Your task to perform on an android device: stop showing notifications on the lock screen Image 0: 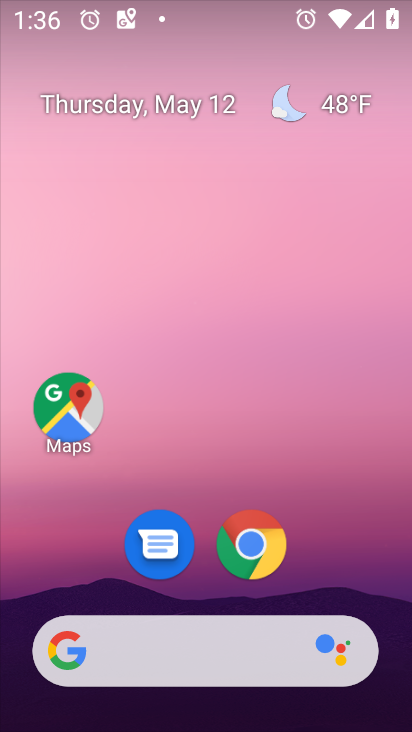
Step 0: drag from (337, 505) to (5, 240)
Your task to perform on an android device: stop showing notifications on the lock screen Image 1: 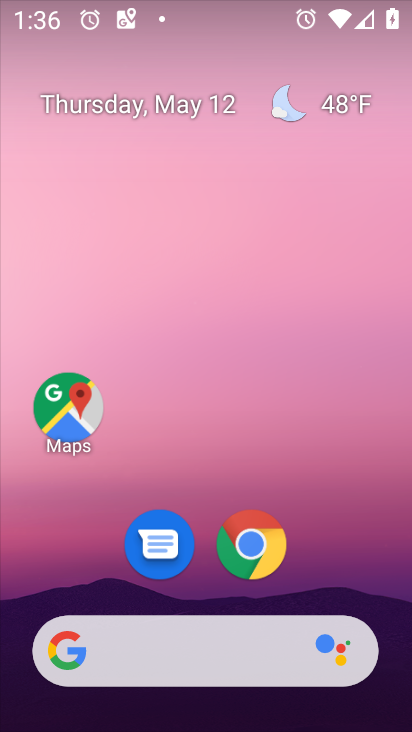
Step 1: drag from (8, 669) to (19, 4)
Your task to perform on an android device: stop showing notifications on the lock screen Image 2: 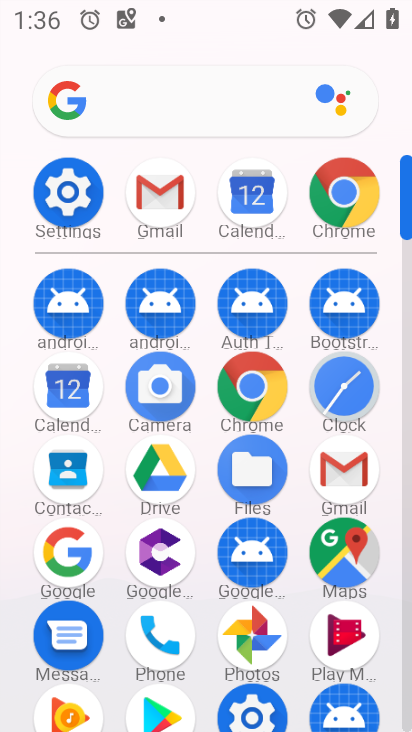
Step 2: click (66, 193)
Your task to perform on an android device: stop showing notifications on the lock screen Image 3: 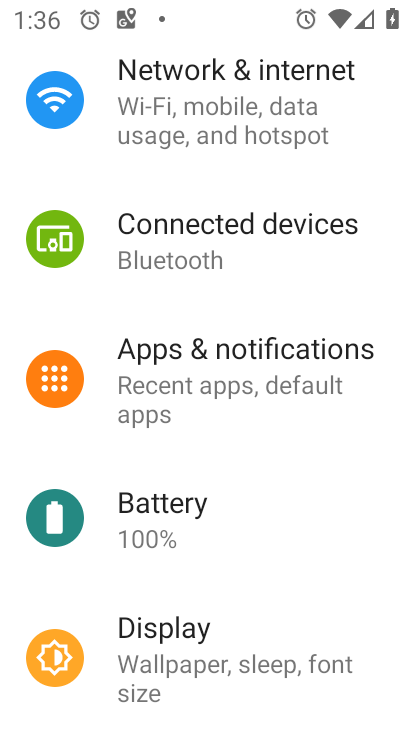
Step 3: drag from (262, 509) to (269, 114)
Your task to perform on an android device: stop showing notifications on the lock screen Image 4: 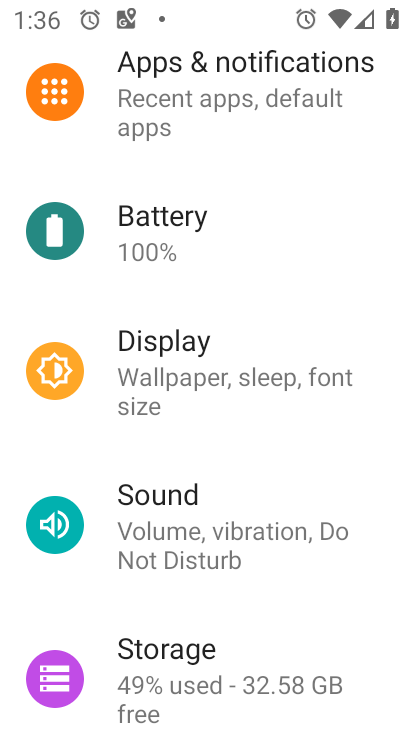
Step 4: drag from (269, 551) to (276, 168)
Your task to perform on an android device: stop showing notifications on the lock screen Image 5: 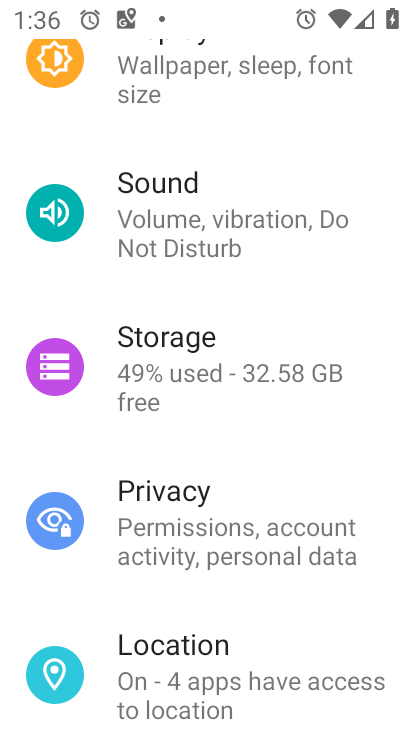
Step 5: drag from (232, 581) to (266, 148)
Your task to perform on an android device: stop showing notifications on the lock screen Image 6: 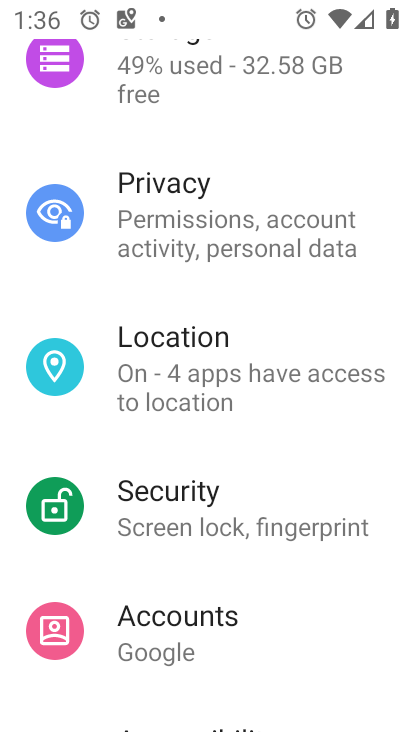
Step 6: drag from (267, 206) to (246, 599)
Your task to perform on an android device: stop showing notifications on the lock screen Image 7: 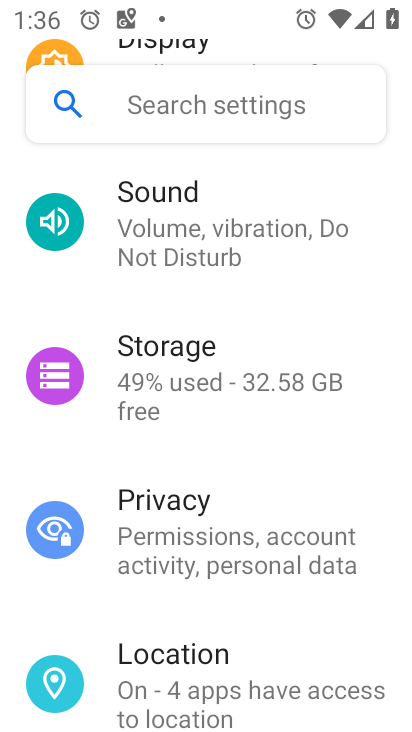
Step 7: drag from (218, 204) to (249, 671)
Your task to perform on an android device: stop showing notifications on the lock screen Image 8: 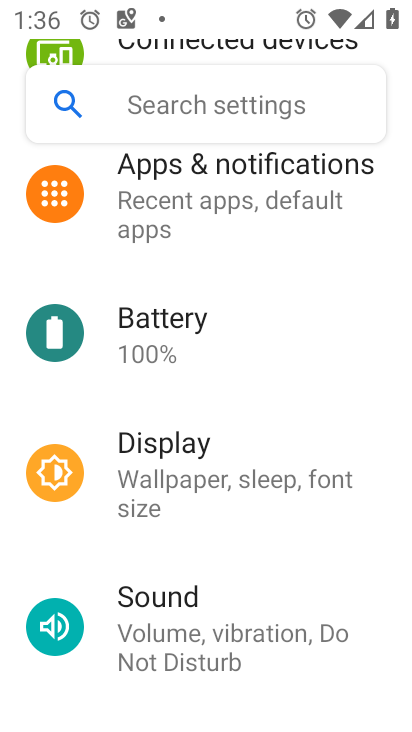
Step 8: click (252, 204)
Your task to perform on an android device: stop showing notifications on the lock screen Image 9: 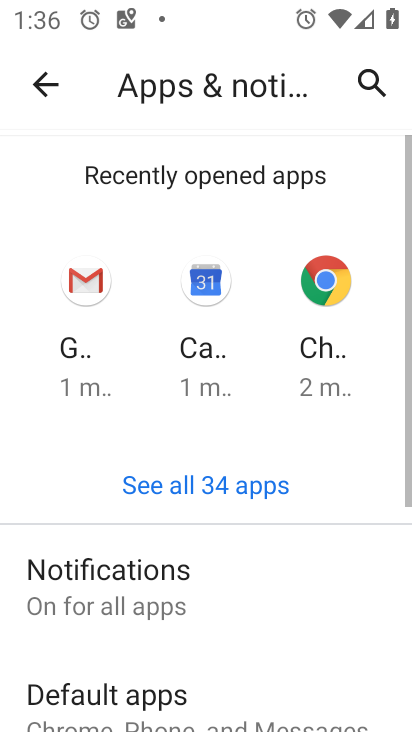
Step 9: drag from (272, 653) to (288, 227)
Your task to perform on an android device: stop showing notifications on the lock screen Image 10: 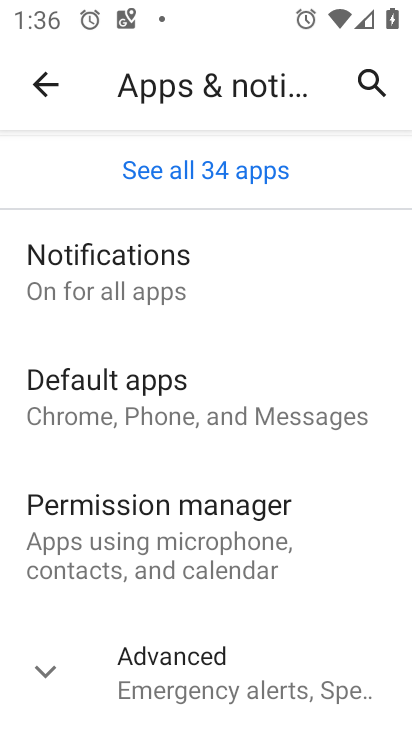
Step 10: drag from (238, 512) to (282, 222)
Your task to perform on an android device: stop showing notifications on the lock screen Image 11: 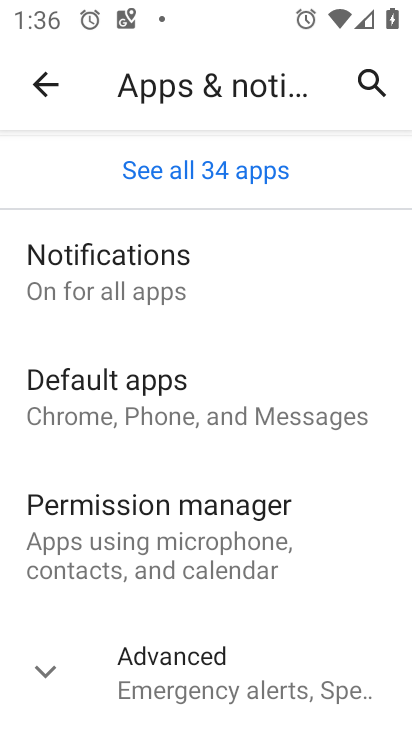
Step 11: click (198, 253)
Your task to perform on an android device: stop showing notifications on the lock screen Image 12: 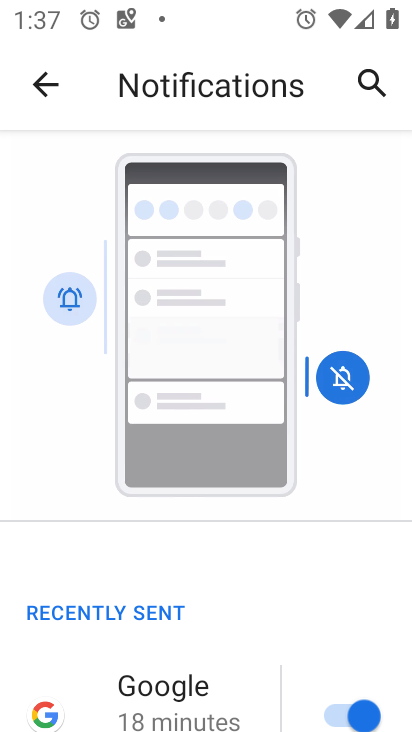
Step 12: drag from (196, 532) to (234, 165)
Your task to perform on an android device: stop showing notifications on the lock screen Image 13: 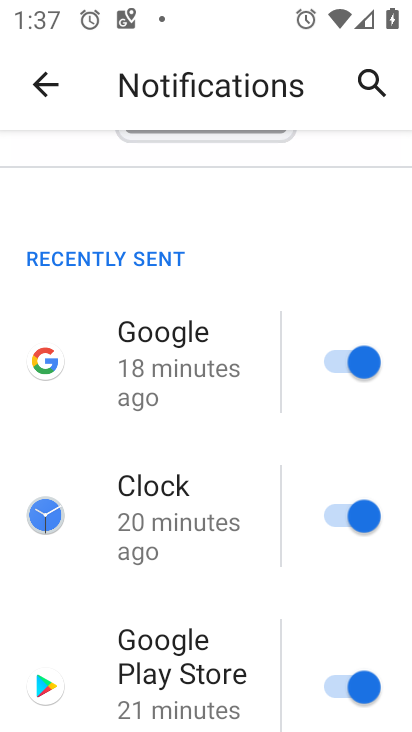
Step 13: drag from (150, 524) to (200, 192)
Your task to perform on an android device: stop showing notifications on the lock screen Image 14: 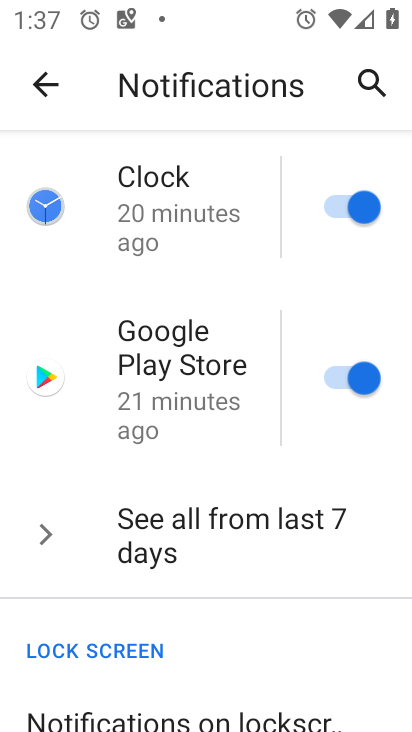
Step 14: drag from (212, 564) to (226, 136)
Your task to perform on an android device: stop showing notifications on the lock screen Image 15: 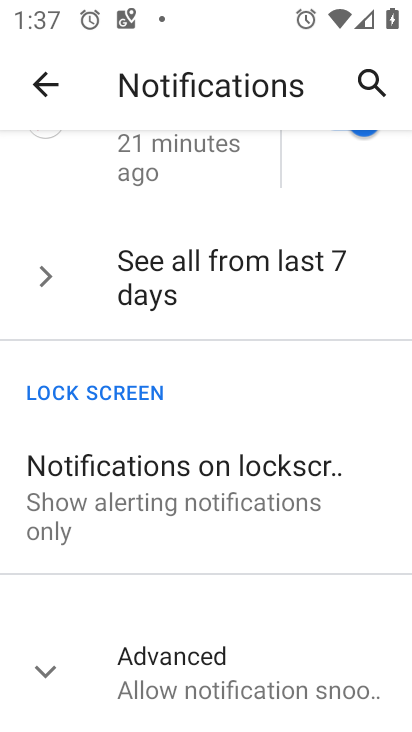
Step 15: drag from (192, 439) to (218, 213)
Your task to perform on an android device: stop showing notifications on the lock screen Image 16: 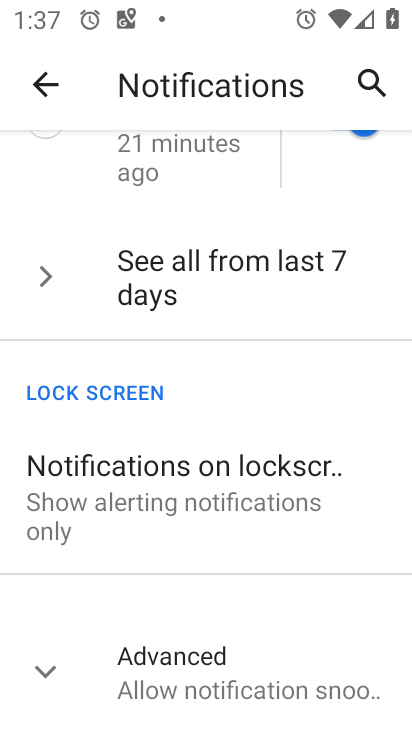
Step 16: drag from (192, 589) to (201, 247)
Your task to perform on an android device: stop showing notifications on the lock screen Image 17: 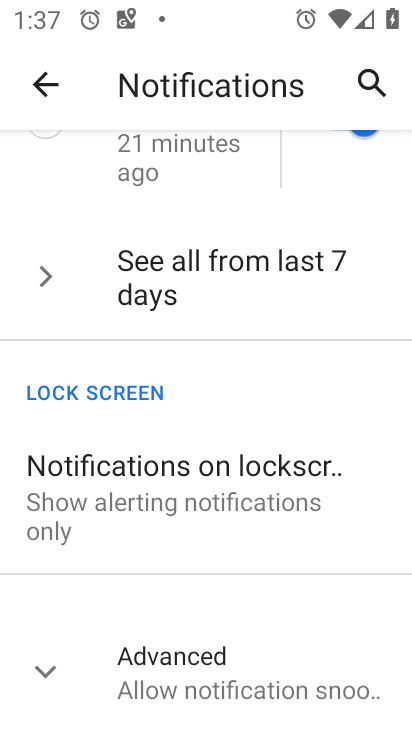
Step 17: drag from (238, 519) to (252, 291)
Your task to perform on an android device: stop showing notifications on the lock screen Image 18: 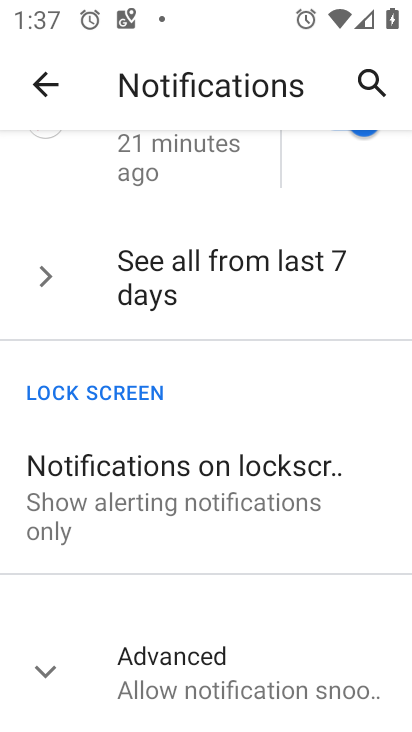
Step 18: click (162, 468)
Your task to perform on an android device: stop showing notifications on the lock screen Image 19: 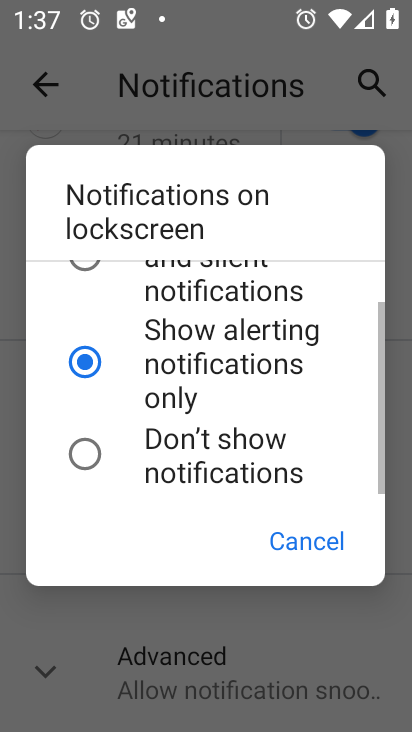
Step 19: click (162, 468)
Your task to perform on an android device: stop showing notifications on the lock screen Image 20: 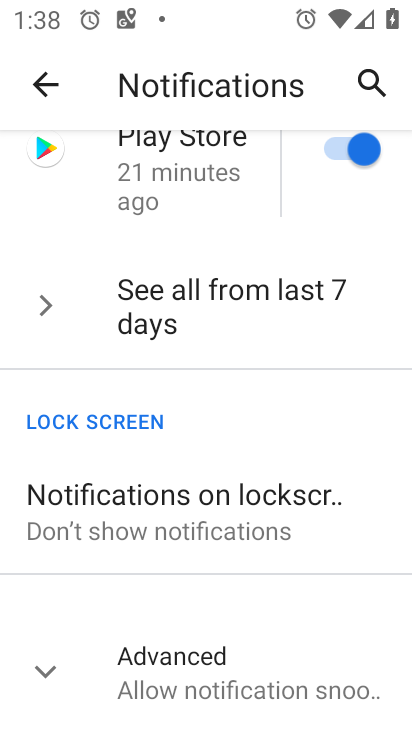
Step 20: task complete